Your task to perform on an android device: Show me recent news Image 0: 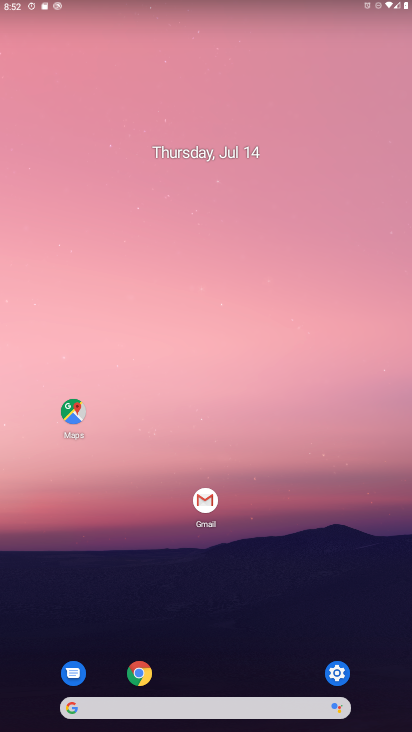
Step 0: click (186, 709)
Your task to perform on an android device: Show me recent news Image 1: 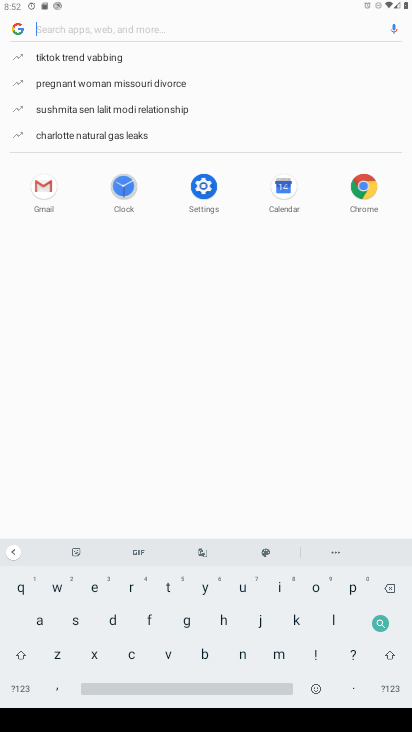
Step 1: click (120, 587)
Your task to perform on an android device: Show me recent news Image 2: 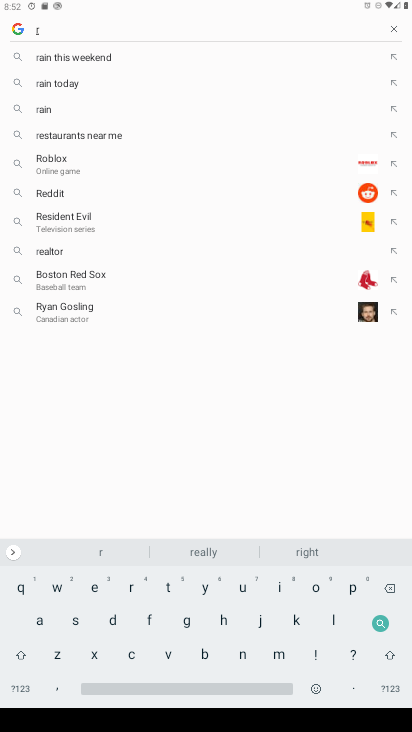
Step 2: click (97, 586)
Your task to perform on an android device: Show me recent news Image 3: 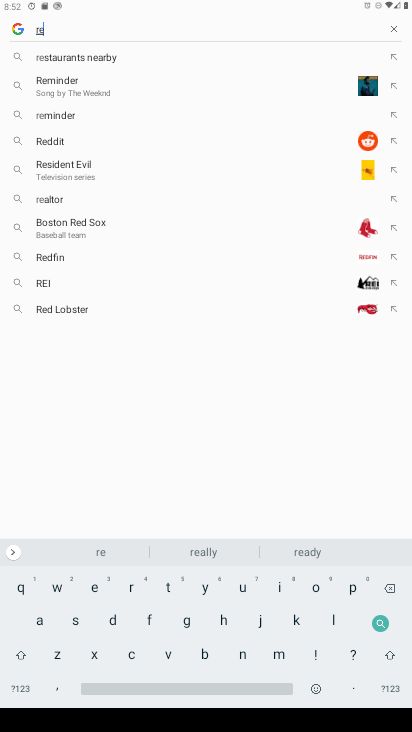
Step 3: click (132, 651)
Your task to perform on an android device: Show me recent news Image 4: 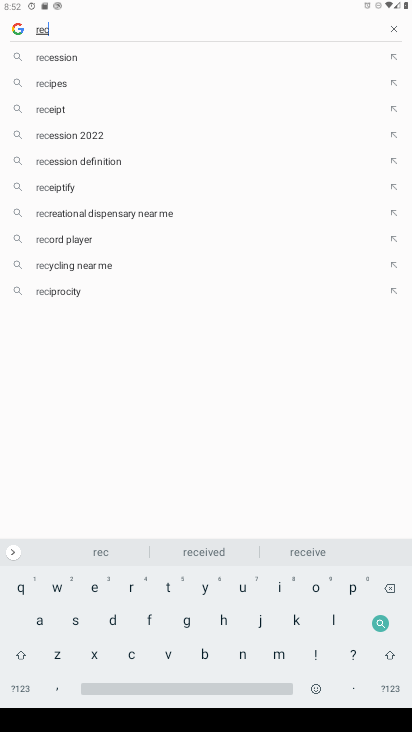
Step 4: click (91, 580)
Your task to perform on an android device: Show me recent news Image 5: 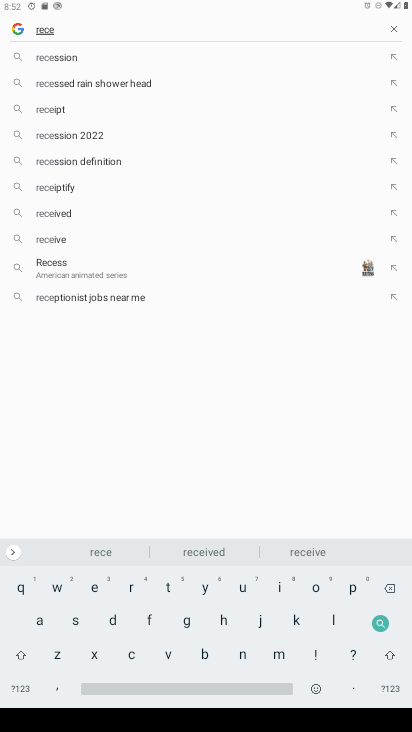
Step 5: click (389, 586)
Your task to perform on an android device: Show me recent news Image 6: 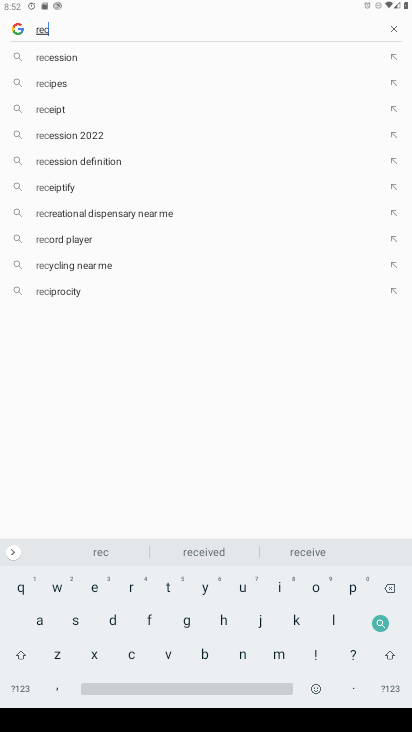
Step 6: click (92, 589)
Your task to perform on an android device: Show me recent news Image 7: 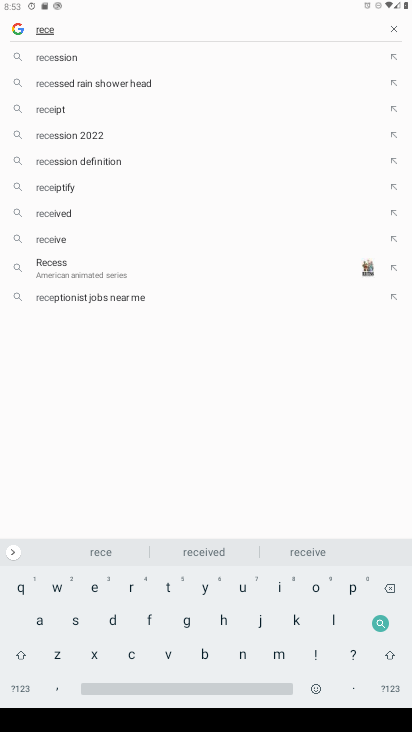
Step 7: click (240, 655)
Your task to perform on an android device: Show me recent news Image 8: 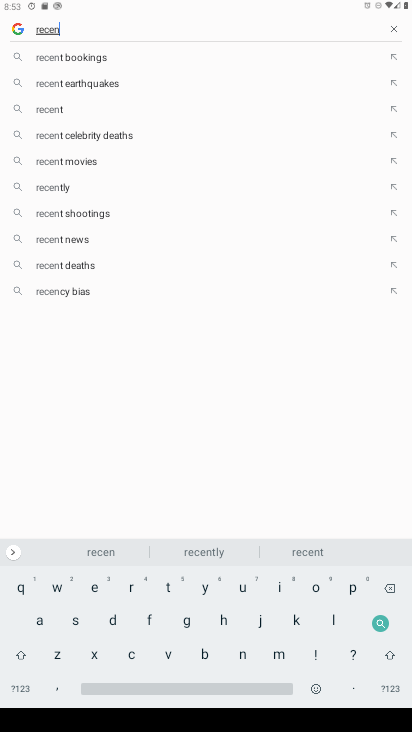
Step 8: click (303, 554)
Your task to perform on an android device: Show me recent news Image 9: 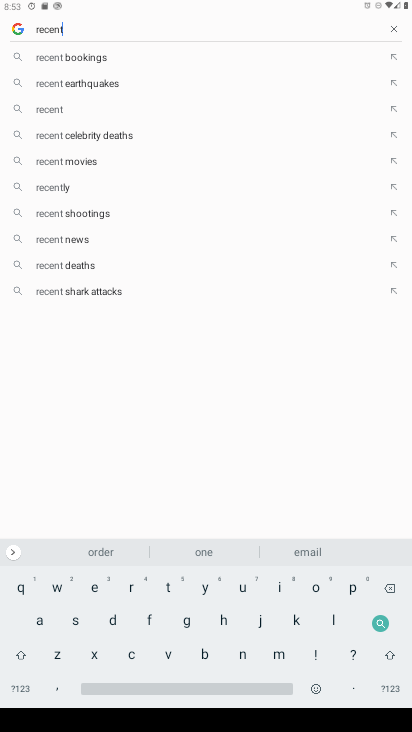
Step 9: click (235, 653)
Your task to perform on an android device: Show me recent news Image 10: 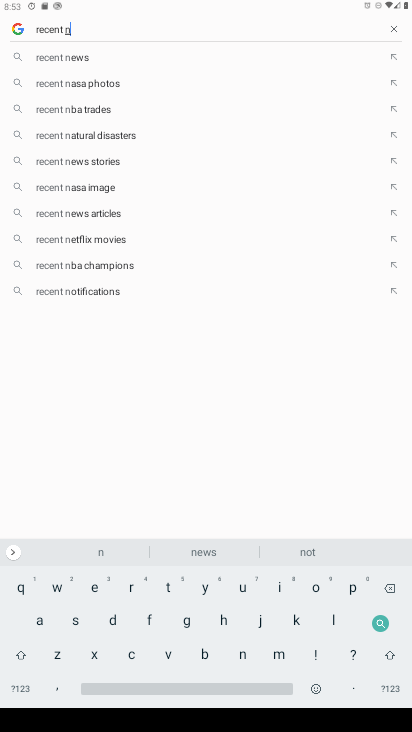
Step 10: click (94, 52)
Your task to perform on an android device: Show me recent news Image 11: 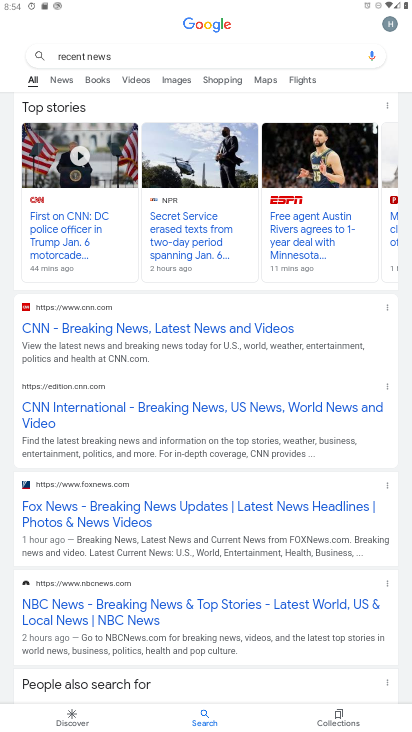
Step 11: task complete